Your task to perform on an android device: What's on my calendar today? Image 0: 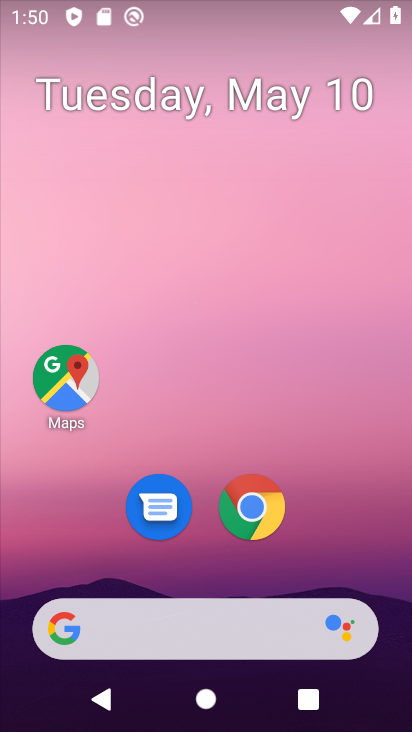
Step 0: drag from (343, 508) to (207, 110)
Your task to perform on an android device: What's on my calendar today? Image 1: 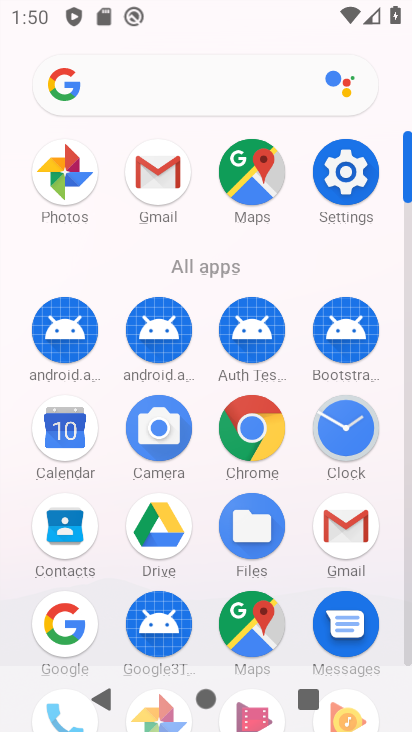
Step 1: click (63, 428)
Your task to perform on an android device: What's on my calendar today? Image 2: 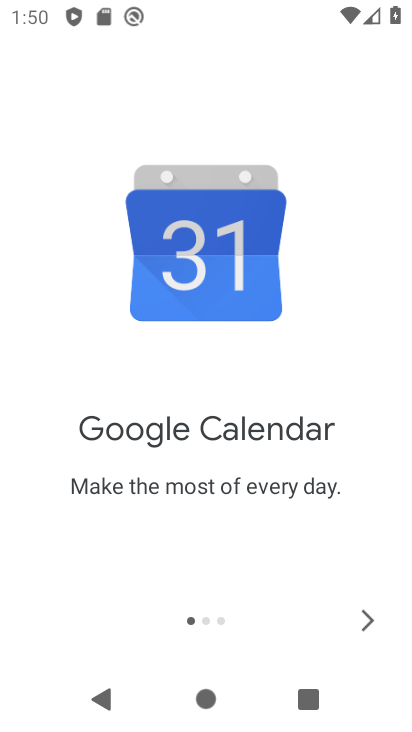
Step 2: click (350, 613)
Your task to perform on an android device: What's on my calendar today? Image 3: 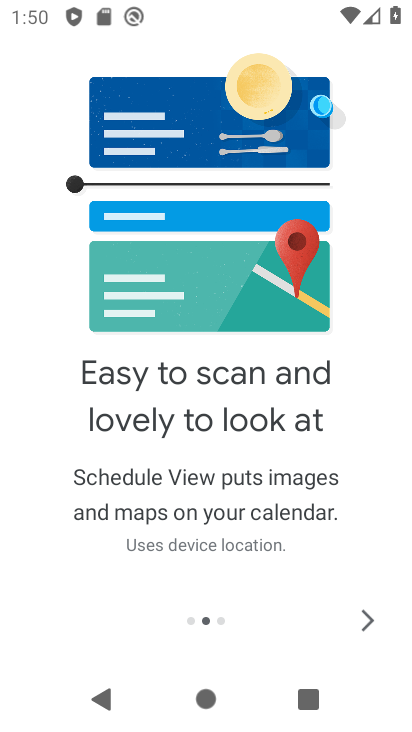
Step 3: click (353, 612)
Your task to perform on an android device: What's on my calendar today? Image 4: 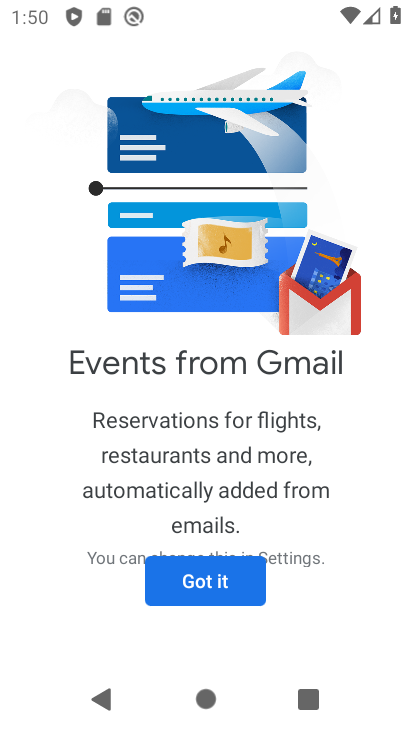
Step 4: click (225, 573)
Your task to perform on an android device: What's on my calendar today? Image 5: 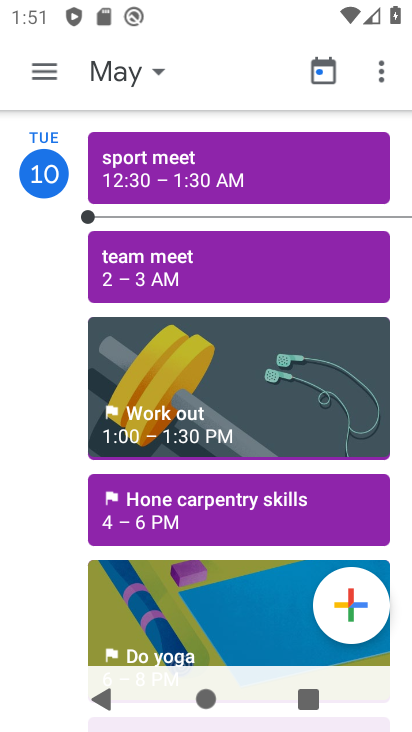
Step 5: click (153, 257)
Your task to perform on an android device: What's on my calendar today? Image 6: 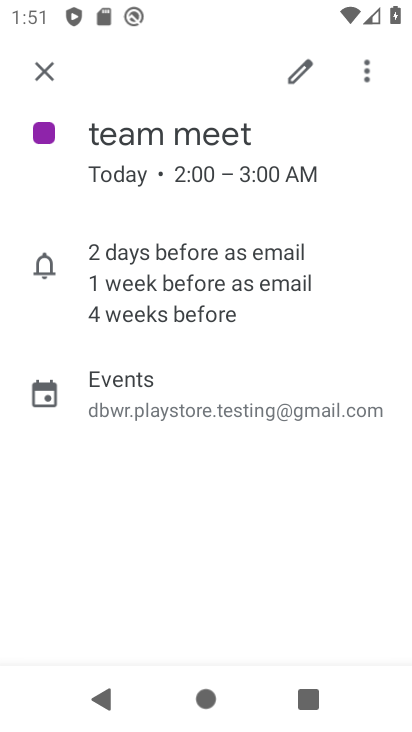
Step 6: task complete